Your task to perform on an android device: stop showing notifications on the lock screen Image 0: 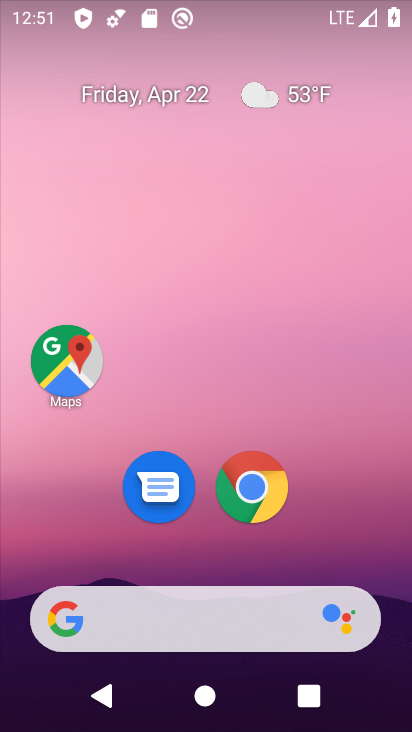
Step 0: drag from (181, 560) to (237, 126)
Your task to perform on an android device: stop showing notifications on the lock screen Image 1: 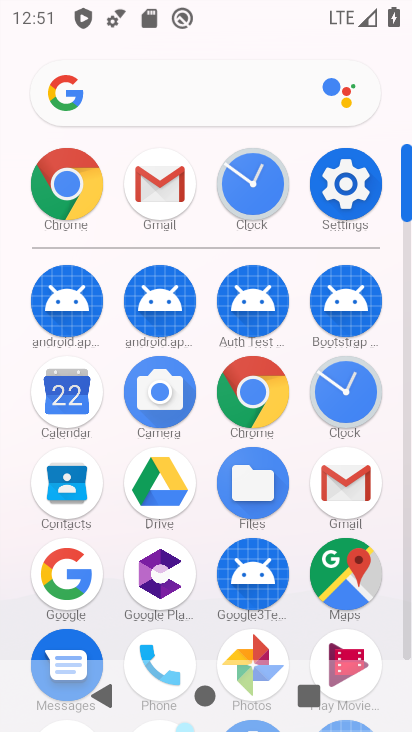
Step 1: click (354, 203)
Your task to perform on an android device: stop showing notifications on the lock screen Image 2: 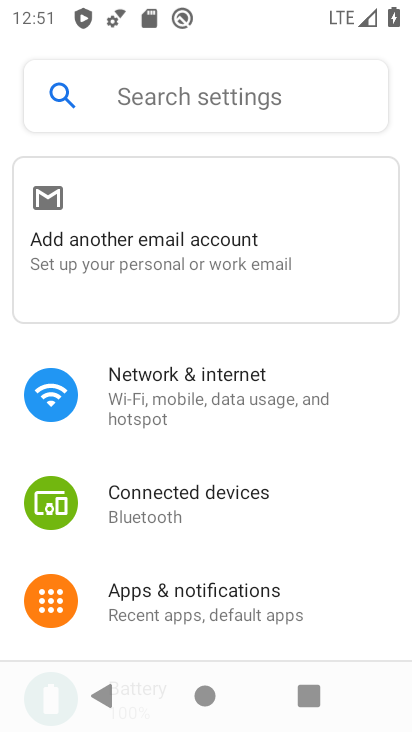
Step 2: drag from (154, 599) to (199, 167)
Your task to perform on an android device: stop showing notifications on the lock screen Image 3: 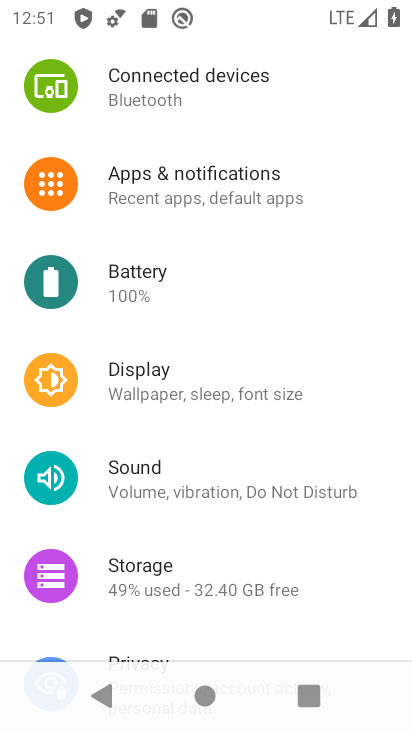
Step 3: click (162, 206)
Your task to perform on an android device: stop showing notifications on the lock screen Image 4: 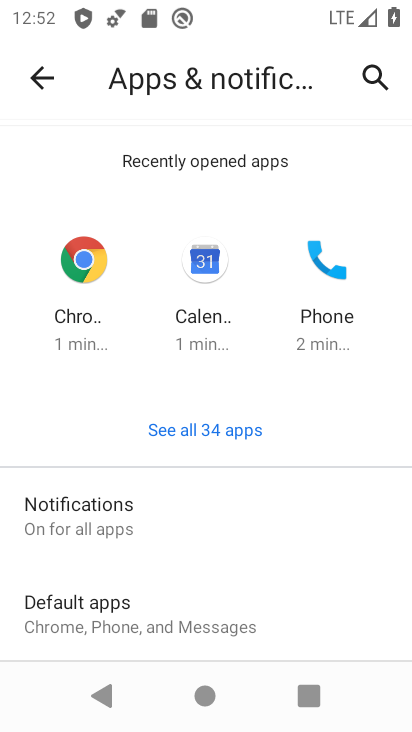
Step 4: drag from (172, 605) to (181, 145)
Your task to perform on an android device: stop showing notifications on the lock screen Image 5: 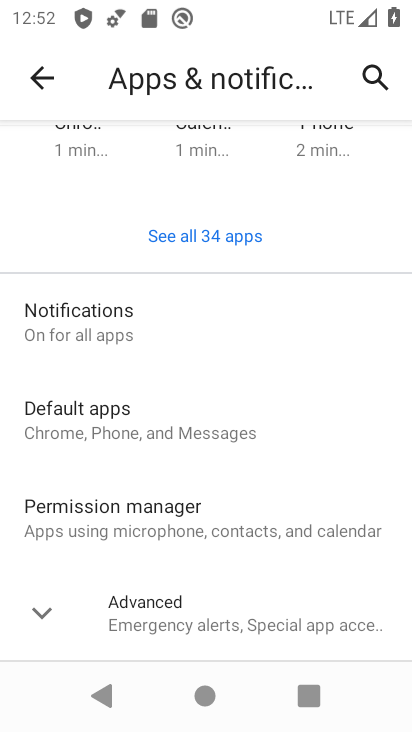
Step 5: click (118, 625)
Your task to perform on an android device: stop showing notifications on the lock screen Image 6: 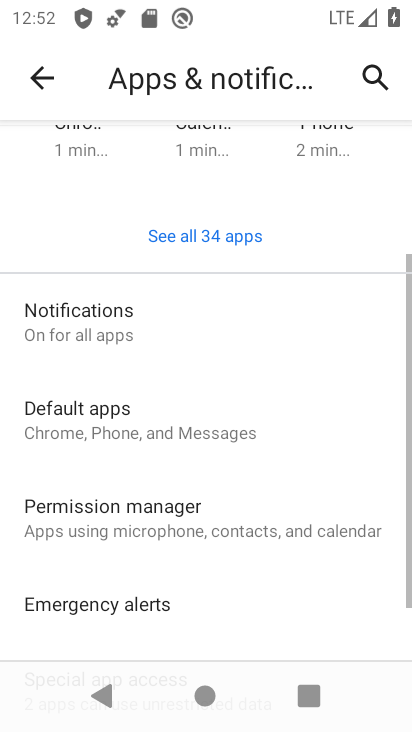
Step 6: drag from (118, 625) to (140, 207)
Your task to perform on an android device: stop showing notifications on the lock screen Image 7: 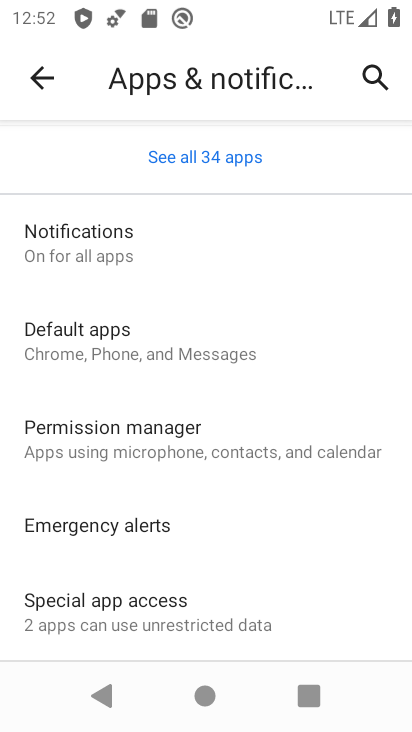
Step 7: click (160, 271)
Your task to perform on an android device: stop showing notifications on the lock screen Image 8: 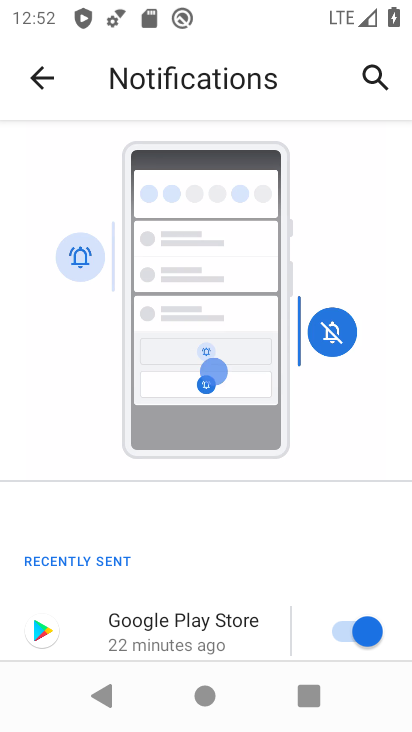
Step 8: drag from (129, 612) to (274, 89)
Your task to perform on an android device: stop showing notifications on the lock screen Image 9: 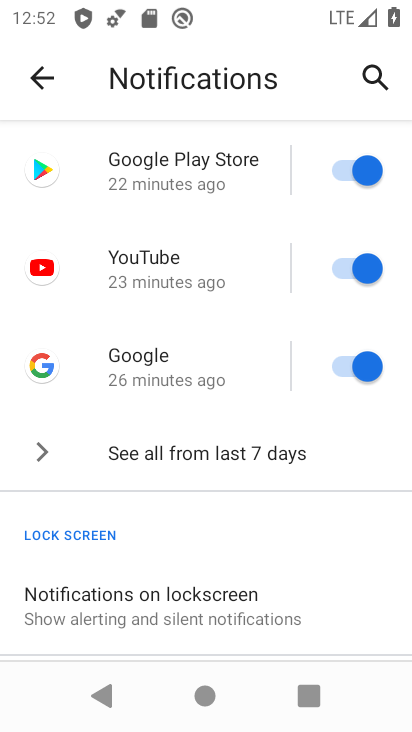
Step 9: click (225, 614)
Your task to perform on an android device: stop showing notifications on the lock screen Image 10: 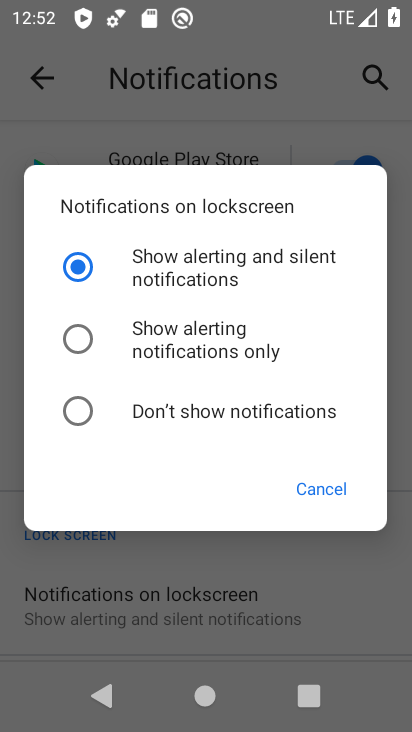
Step 10: click (141, 412)
Your task to perform on an android device: stop showing notifications on the lock screen Image 11: 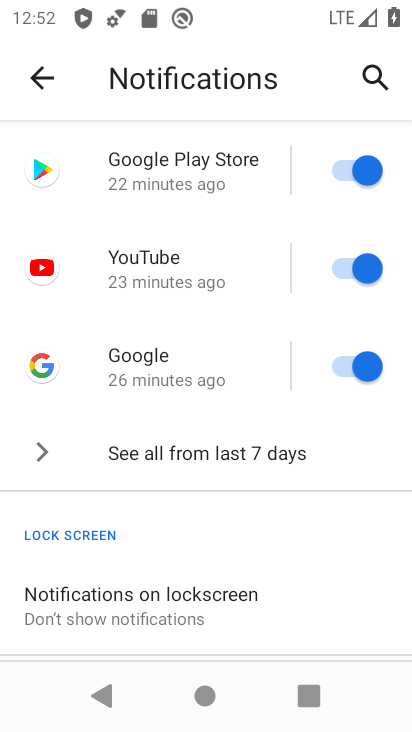
Step 11: task complete